Your task to perform on an android device: Open notification settings Image 0: 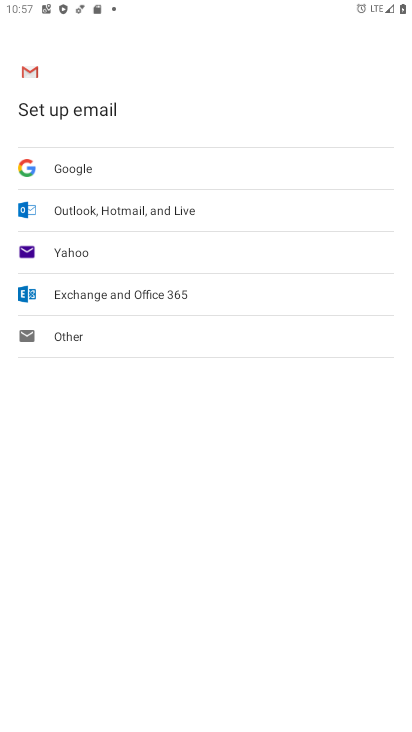
Step 0: press home button
Your task to perform on an android device: Open notification settings Image 1: 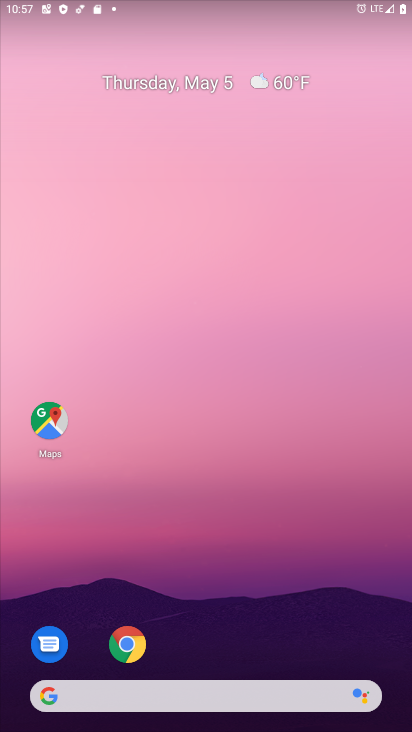
Step 1: drag from (200, 632) to (201, 293)
Your task to perform on an android device: Open notification settings Image 2: 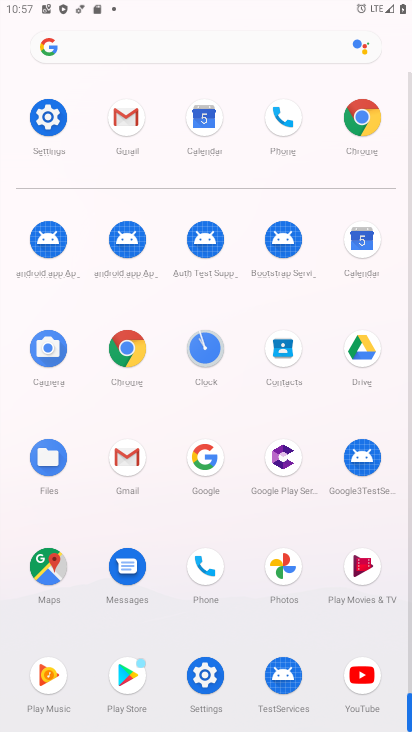
Step 2: click (55, 124)
Your task to perform on an android device: Open notification settings Image 3: 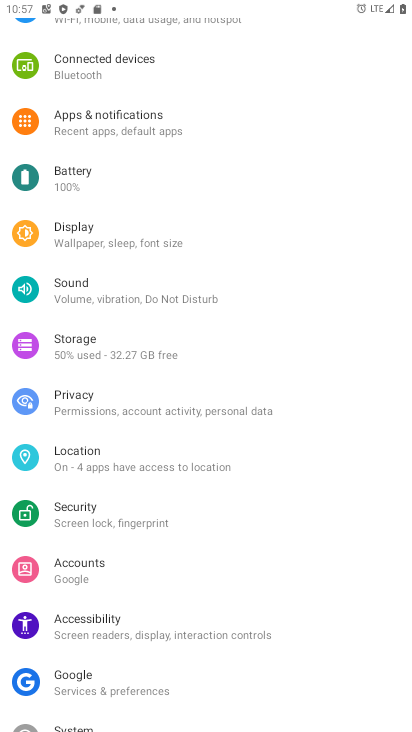
Step 3: click (142, 125)
Your task to perform on an android device: Open notification settings Image 4: 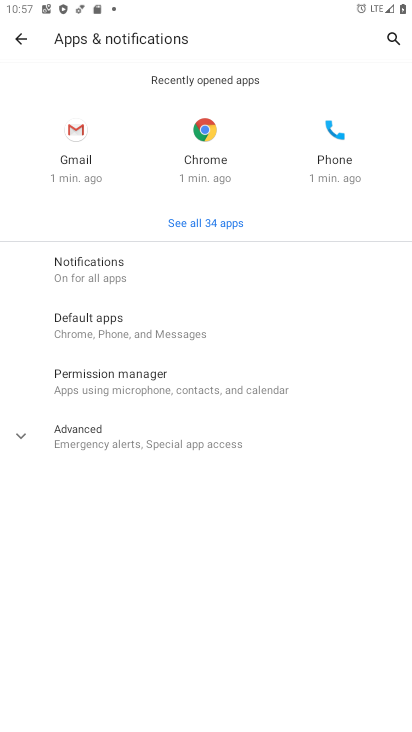
Step 4: click (145, 282)
Your task to perform on an android device: Open notification settings Image 5: 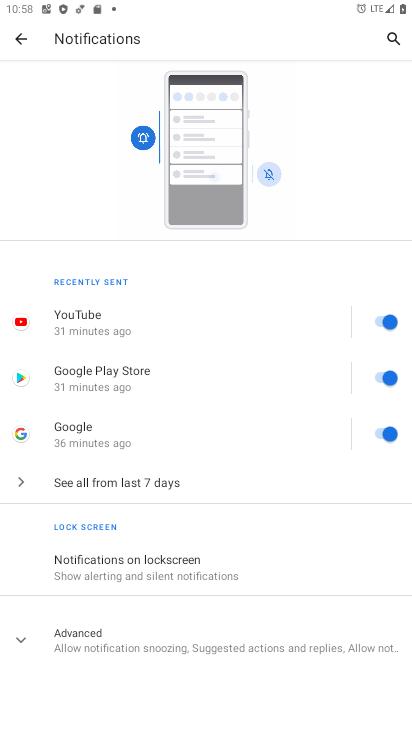
Step 5: task complete